Your task to perform on an android device: Go to display settings Image 0: 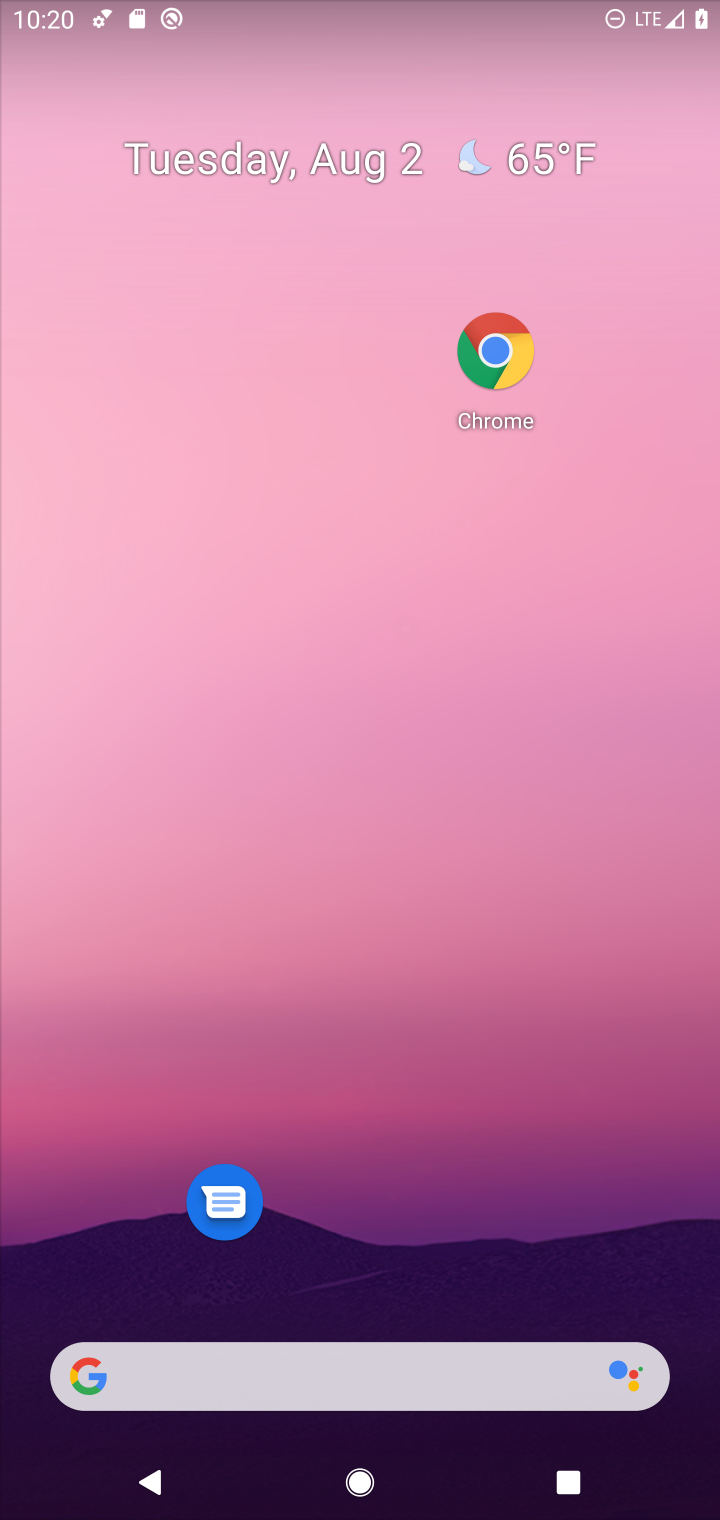
Step 0: press home button
Your task to perform on an android device: Go to display settings Image 1: 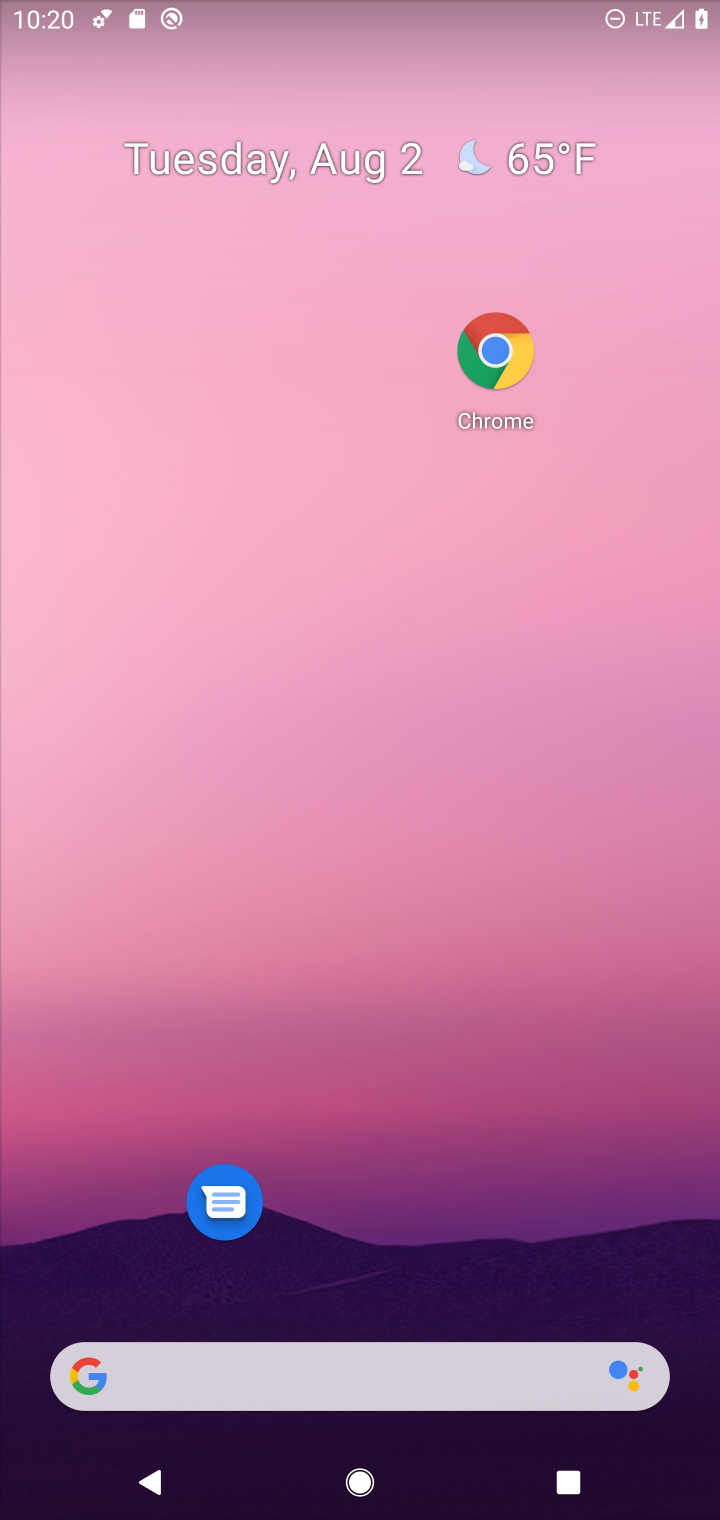
Step 1: drag from (404, 1152) to (396, 47)
Your task to perform on an android device: Go to display settings Image 2: 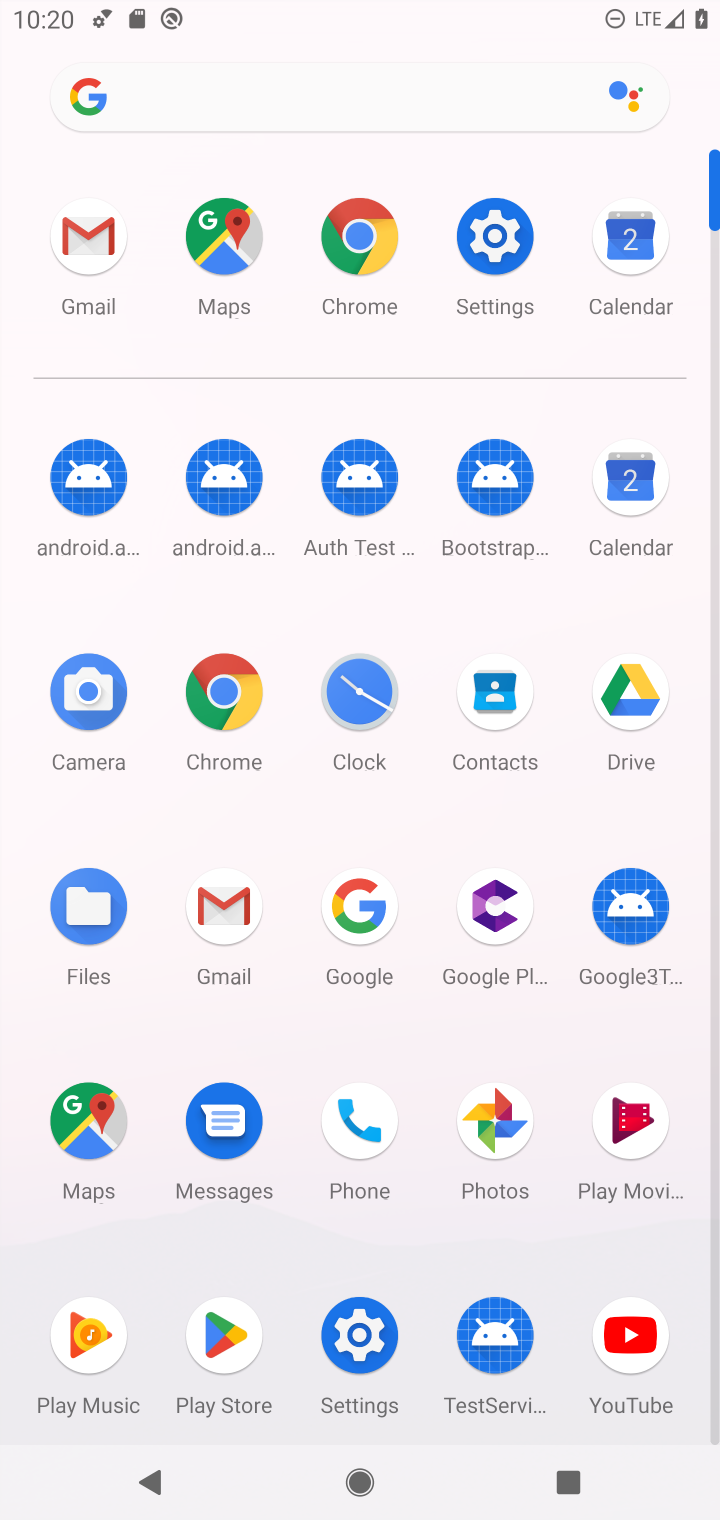
Step 2: click (501, 229)
Your task to perform on an android device: Go to display settings Image 3: 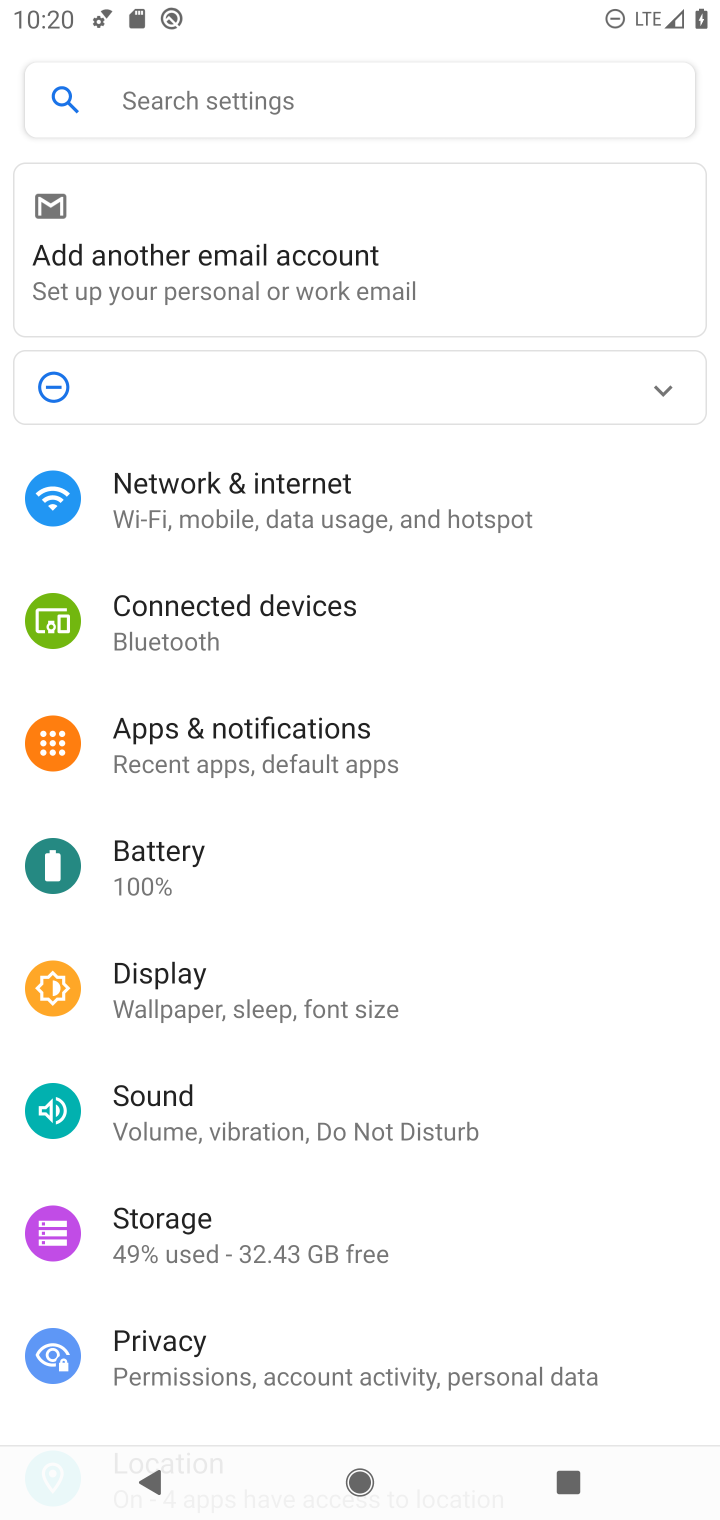
Step 3: click (151, 986)
Your task to perform on an android device: Go to display settings Image 4: 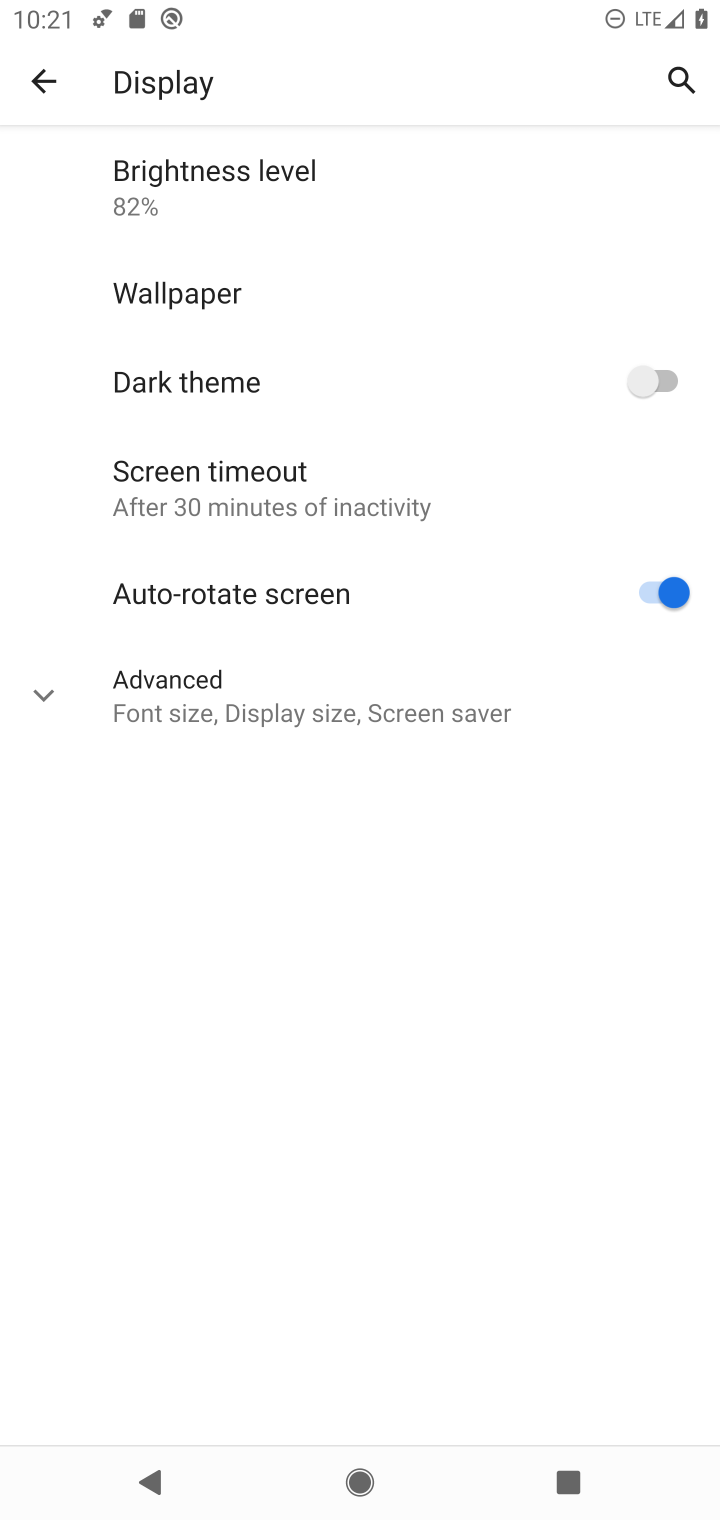
Step 4: task complete